Your task to perform on an android device: change timer sound Image 0: 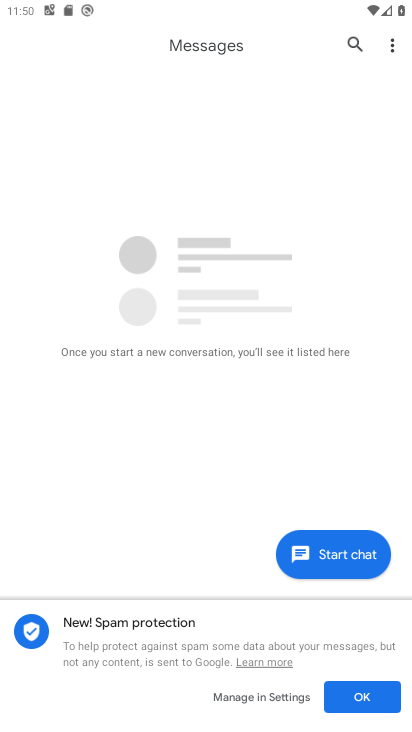
Step 0: press home button
Your task to perform on an android device: change timer sound Image 1: 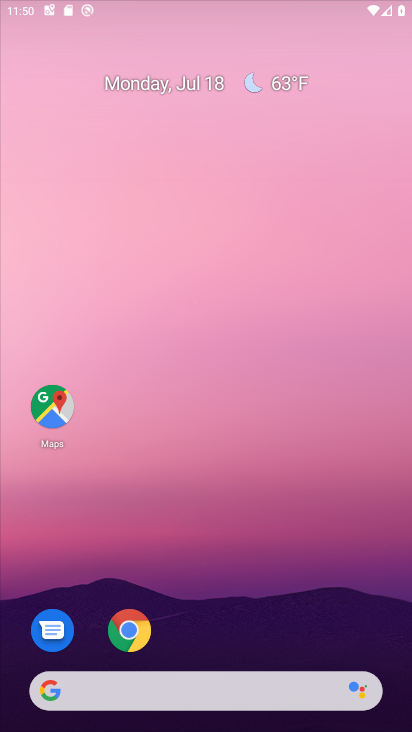
Step 1: drag from (242, 653) to (253, 117)
Your task to perform on an android device: change timer sound Image 2: 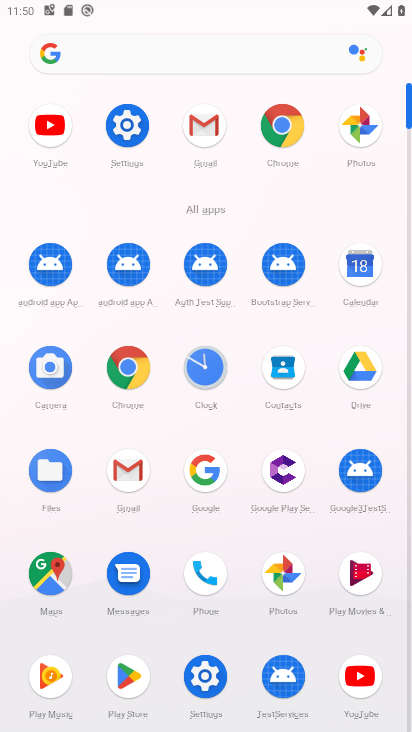
Step 2: click (214, 366)
Your task to perform on an android device: change timer sound Image 3: 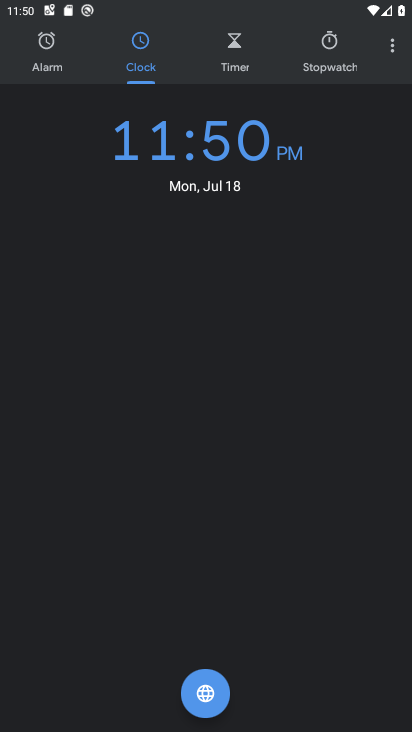
Step 3: click (390, 45)
Your task to perform on an android device: change timer sound Image 4: 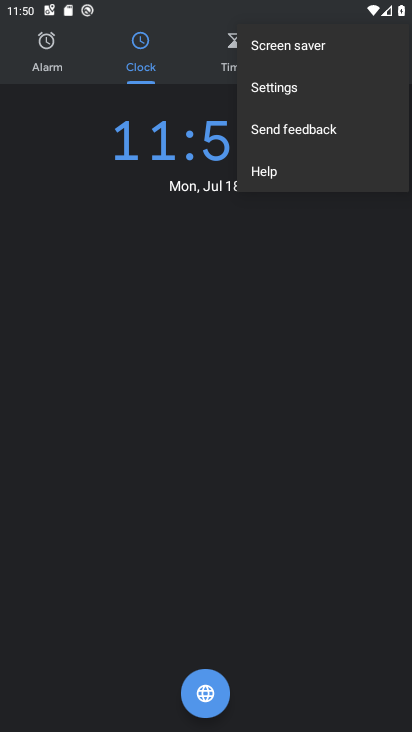
Step 4: click (305, 85)
Your task to perform on an android device: change timer sound Image 5: 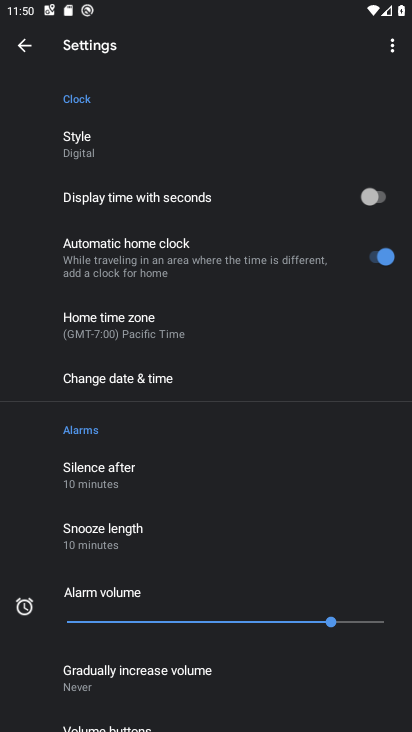
Step 5: drag from (128, 600) to (164, 230)
Your task to perform on an android device: change timer sound Image 6: 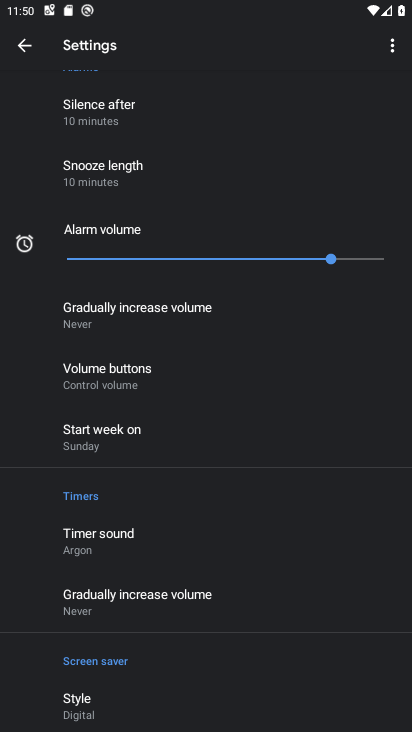
Step 6: drag from (130, 674) to (134, 446)
Your task to perform on an android device: change timer sound Image 7: 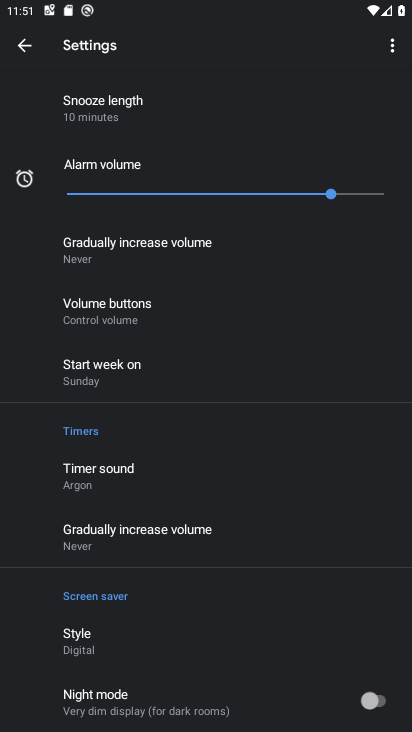
Step 7: click (72, 497)
Your task to perform on an android device: change timer sound Image 8: 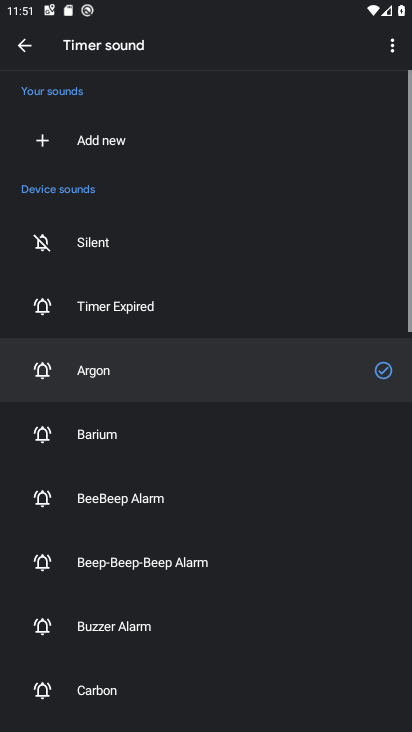
Step 8: click (122, 446)
Your task to perform on an android device: change timer sound Image 9: 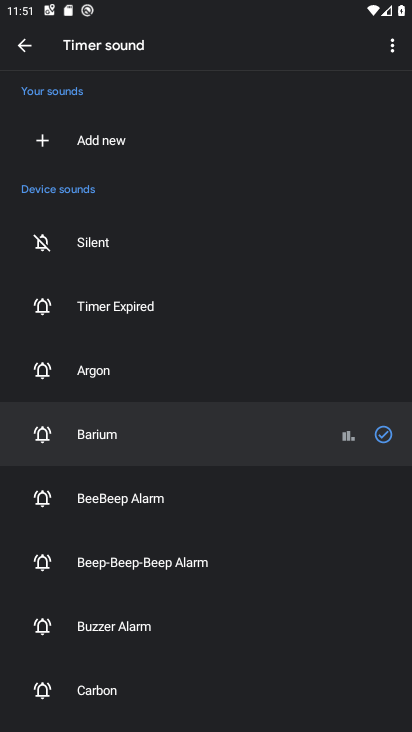
Step 9: task complete